Your task to perform on an android device: Open sound settings Image 0: 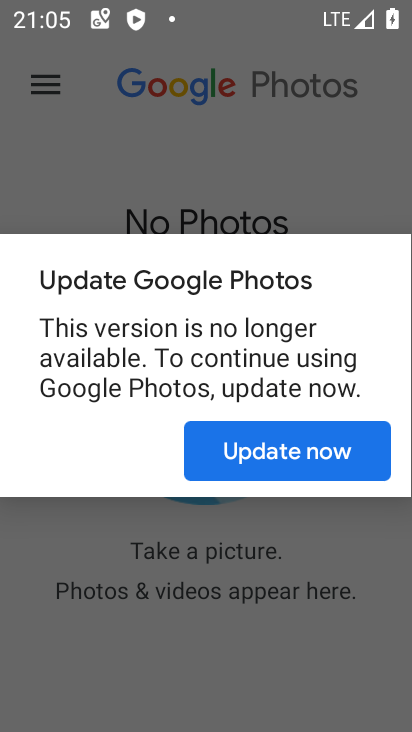
Step 0: press home button
Your task to perform on an android device: Open sound settings Image 1: 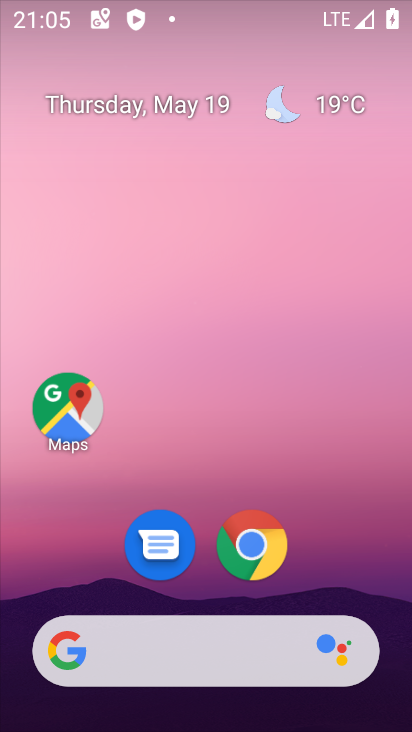
Step 1: drag from (338, 570) to (332, 111)
Your task to perform on an android device: Open sound settings Image 2: 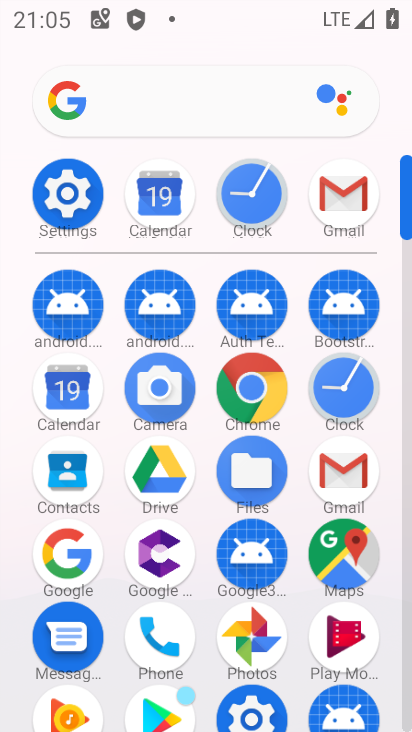
Step 2: click (74, 183)
Your task to perform on an android device: Open sound settings Image 3: 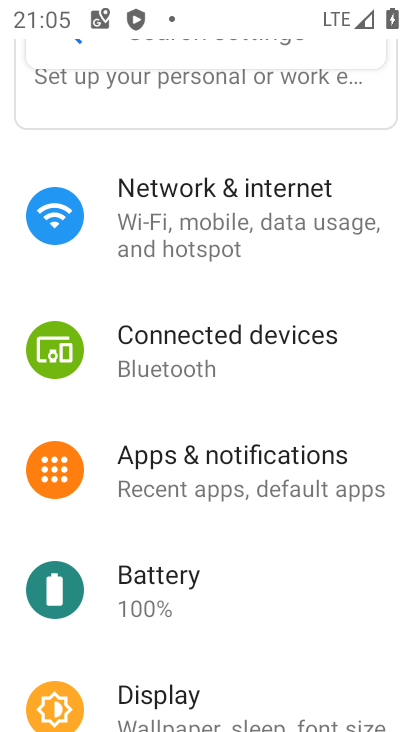
Step 3: drag from (201, 568) to (258, 233)
Your task to perform on an android device: Open sound settings Image 4: 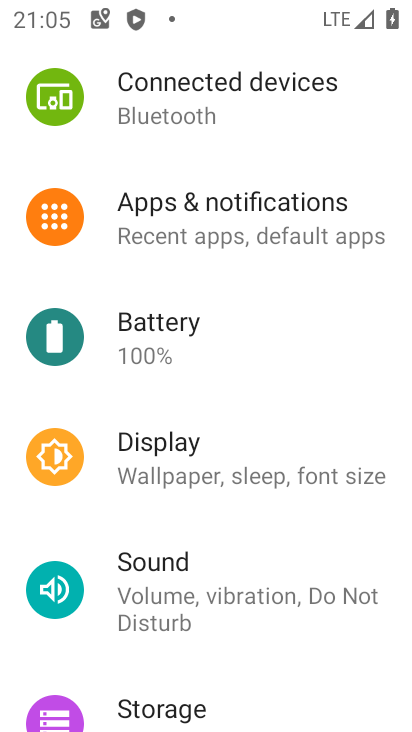
Step 4: click (179, 551)
Your task to perform on an android device: Open sound settings Image 5: 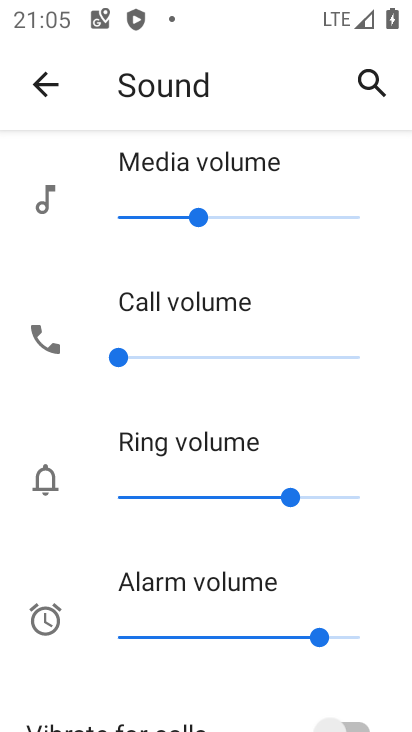
Step 5: task complete